Your task to perform on an android device: move an email to a new category in the gmail app Image 0: 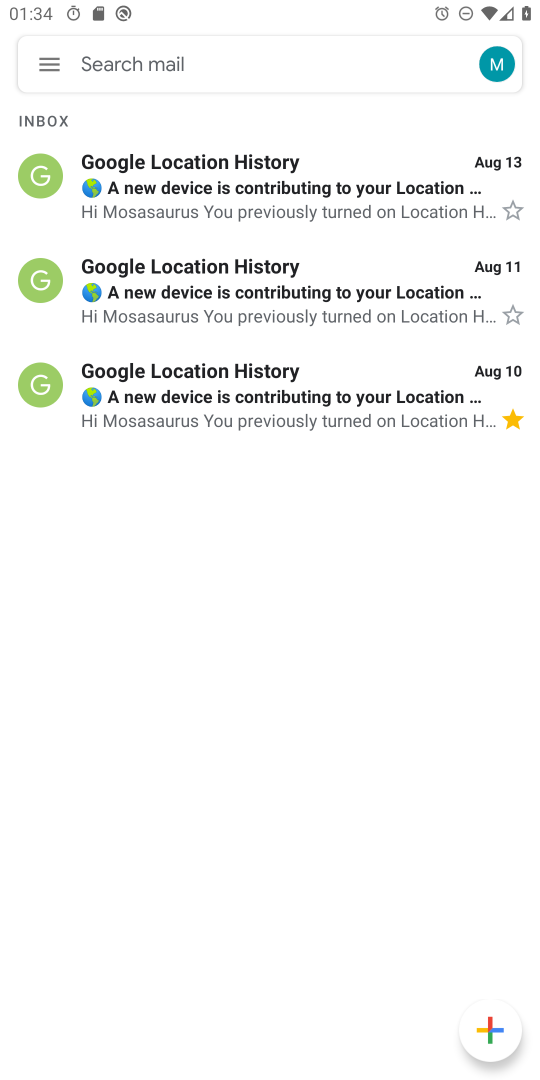
Step 0: click (46, 176)
Your task to perform on an android device: move an email to a new category in the gmail app Image 1: 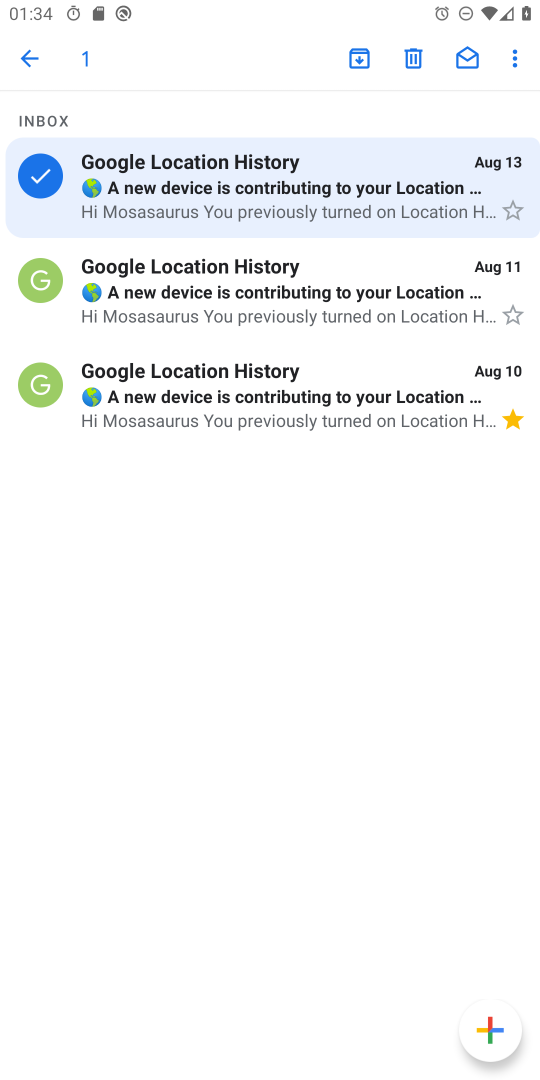
Step 1: click (512, 55)
Your task to perform on an android device: move an email to a new category in the gmail app Image 2: 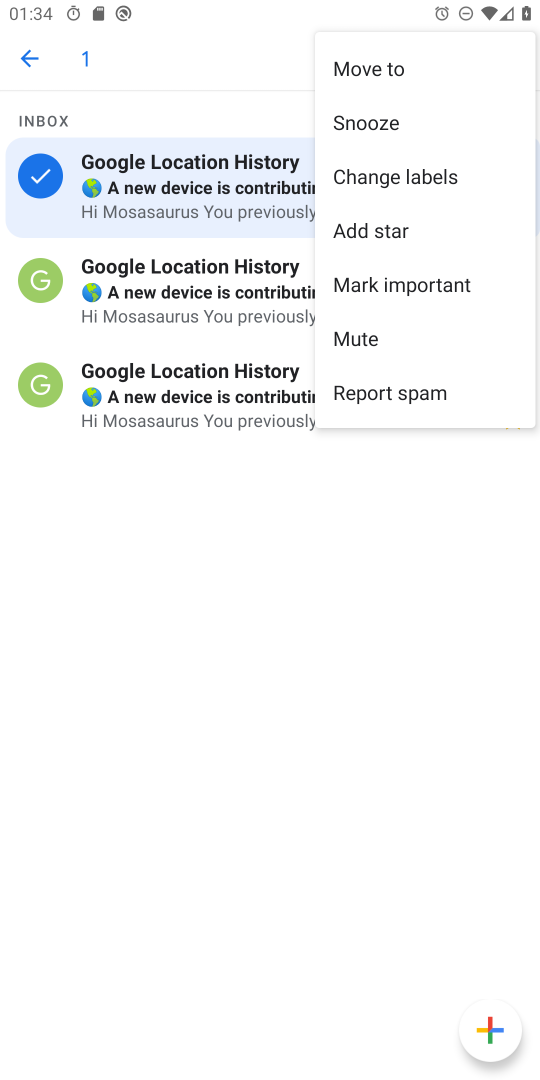
Step 2: click (364, 64)
Your task to perform on an android device: move an email to a new category in the gmail app Image 3: 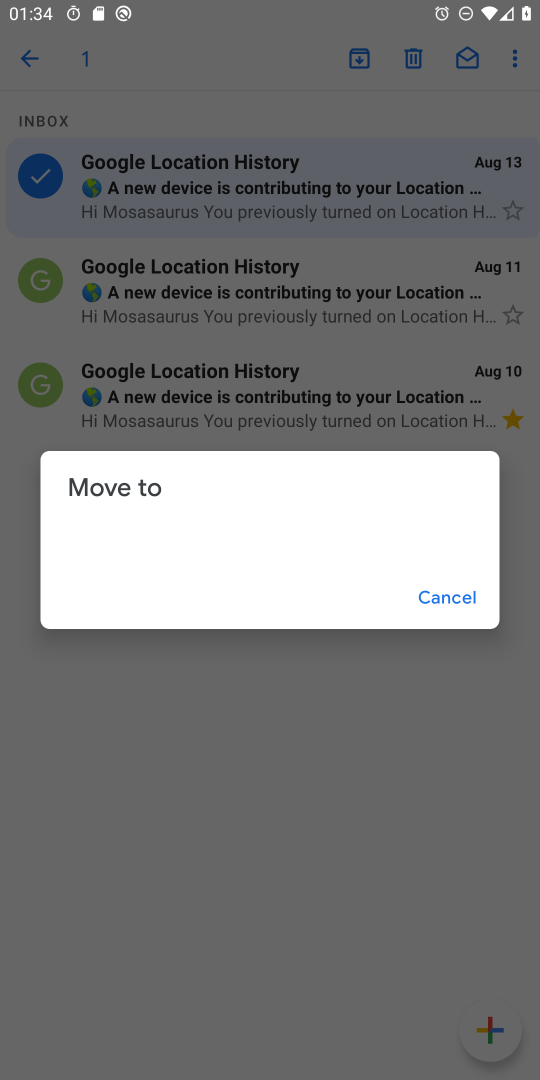
Step 3: click (433, 589)
Your task to perform on an android device: move an email to a new category in the gmail app Image 4: 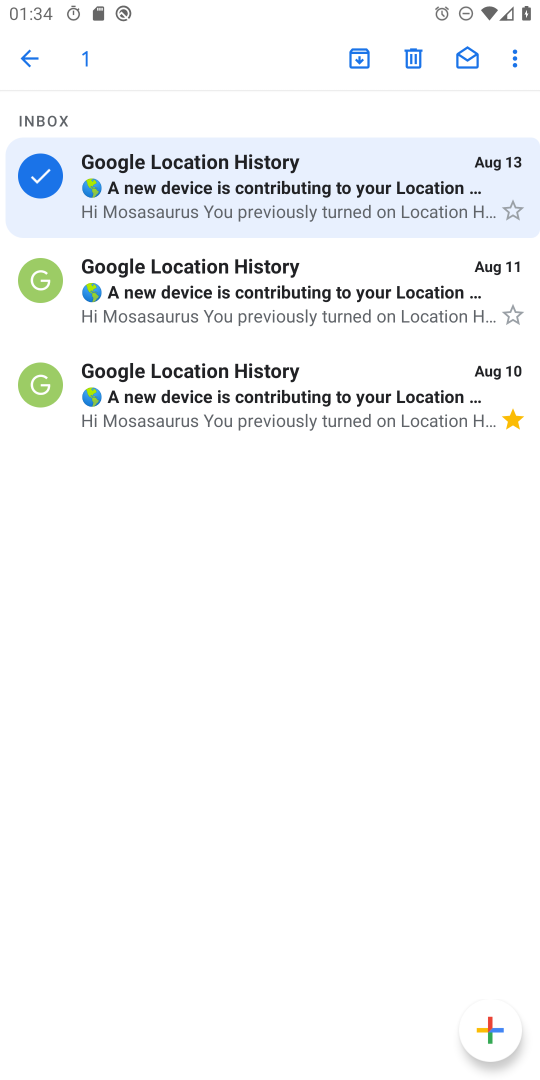
Step 4: task complete